Your task to perform on an android device: What's the weather? Image 0: 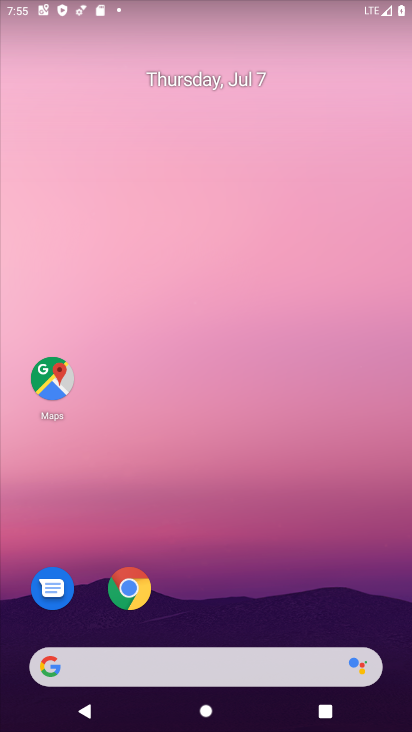
Step 0: drag from (328, 592) to (327, 188)
Your task to perform on an android device: What's the weather? Image 1: 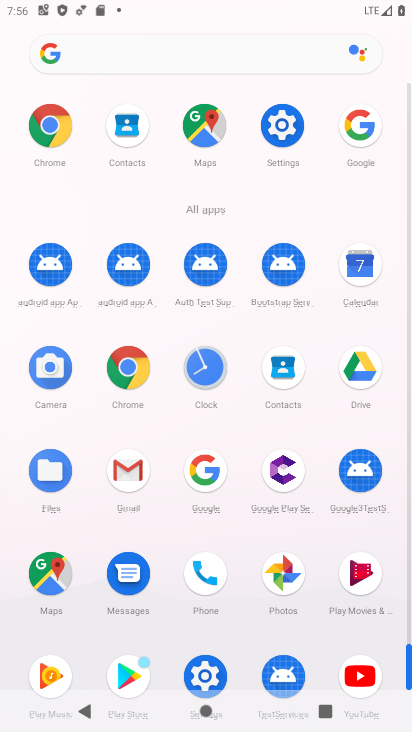
Step 1: click (126, 52)
Your task to perform on an android device: What's the weather? Image 2: 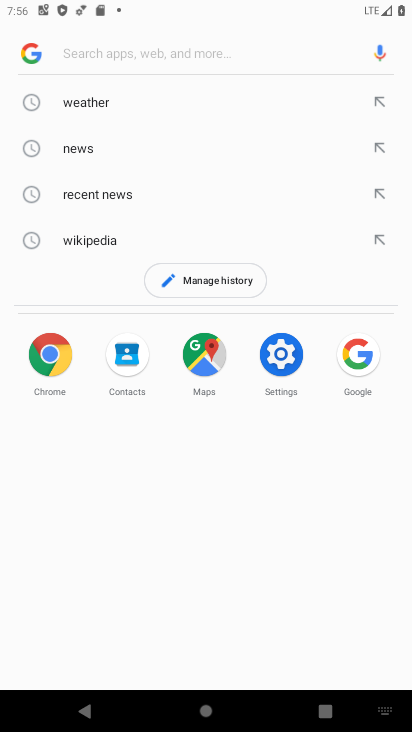
Step 2: click (103, 97)
Your task to perform on an android device: What's the weather? Image 3: 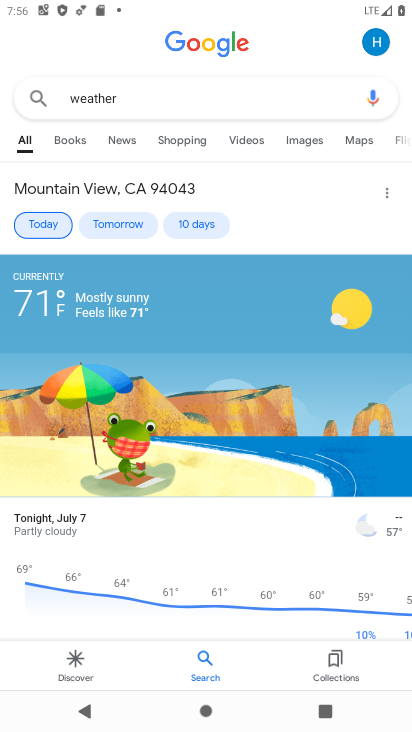
Step 3: task complete